Your task to perform on an android device: move a message to another label in the gmail app Image 0: 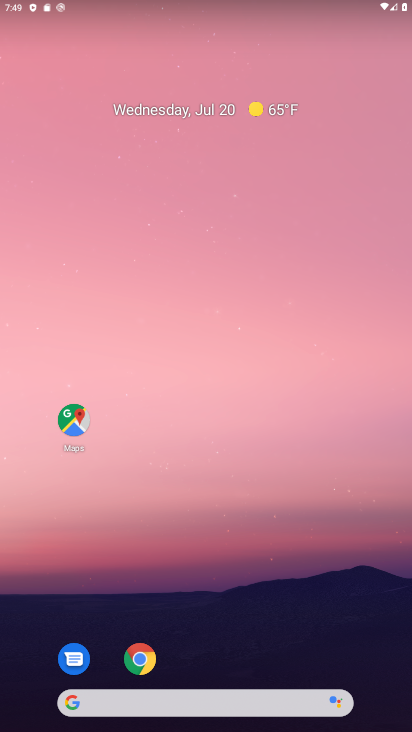
Step 0: drag from (344, 715) to (308, 0)
Your task to perform on an android device: move a message to another label in the gmail app Image 1: 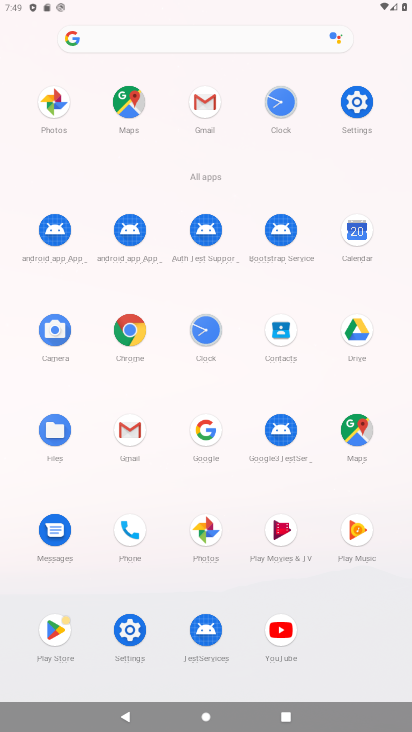
Step 1: click (139, 433)
Your task to perform on an android device: move a message to another label in the gmail app Image 2: 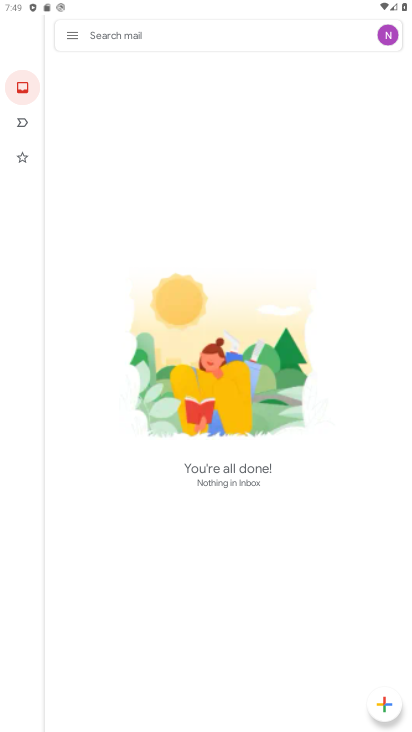
Step 2: task complete